Your task to perform on an android device: check the backup settings in the google photos Image 0: 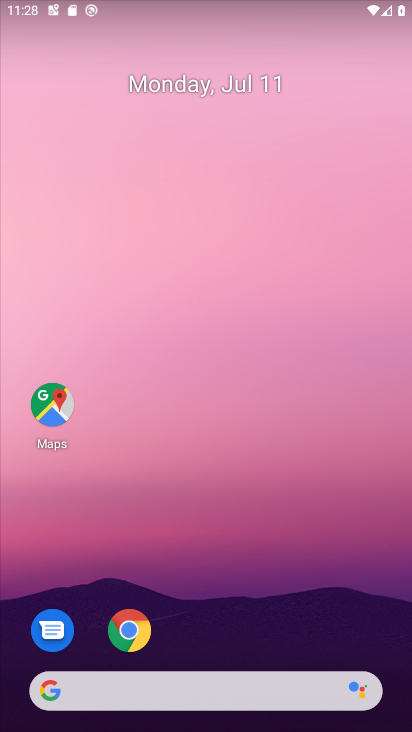
Step 0: drag from (218, 646) to (279, 0)
Your task to perform on an android device: check the backup settings in the google photos Image 1: 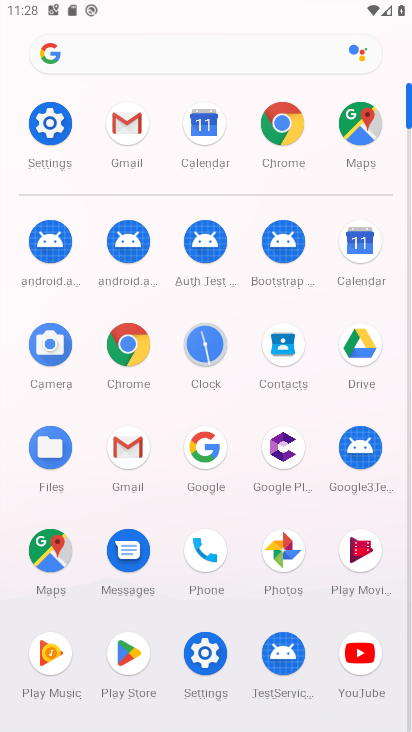
Step 1: click (285, 556)
Your task to perform on an android device: check the backup settings in the google photos Image 2: 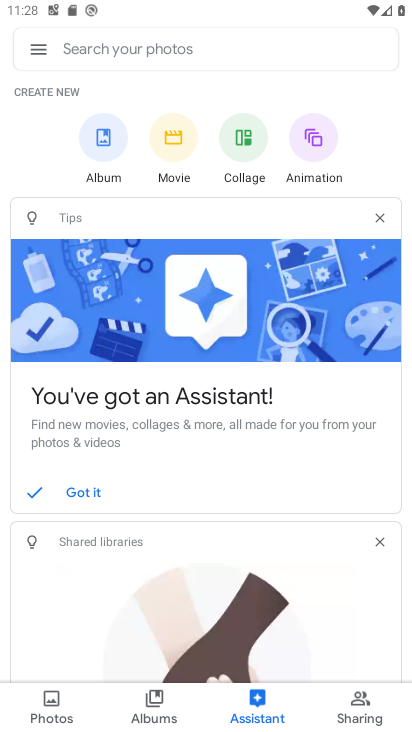
Step 2: click (56, 695)
Your task to perform on an android device: check the backup settings in the google photos Image 3: 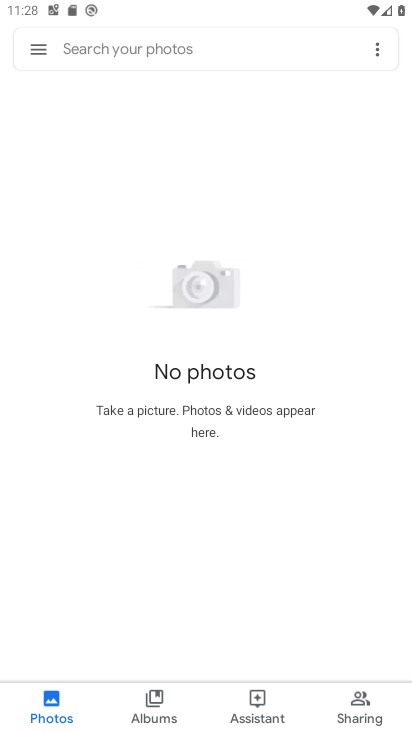
Step 3: click (36, 27)
Your task to perform on an android device: check the backup settings in the google photos Image 4: 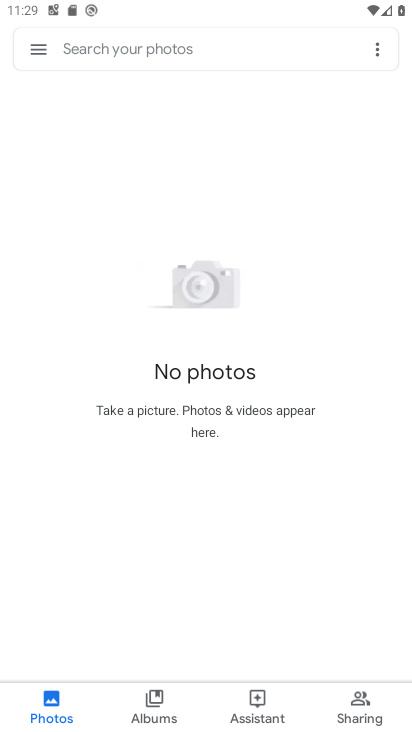
Step 4: click (35, 53)
Your task to perform on an android device: check the backup settings in the google photos Image 5: 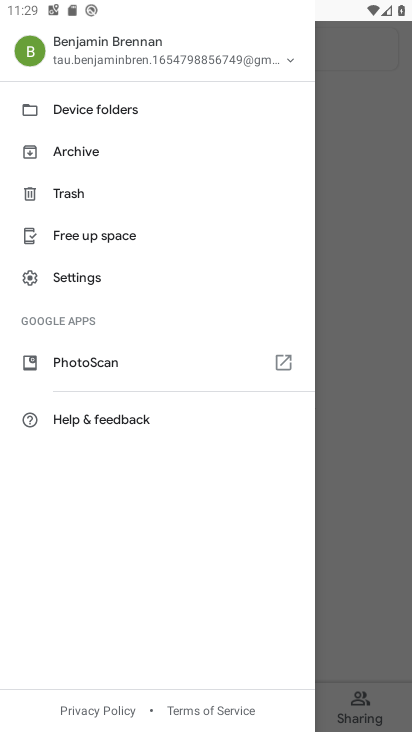
Step 5: click (87, 285)
Your task to perform on an android device: check the backup settings in the google photos Image 6: 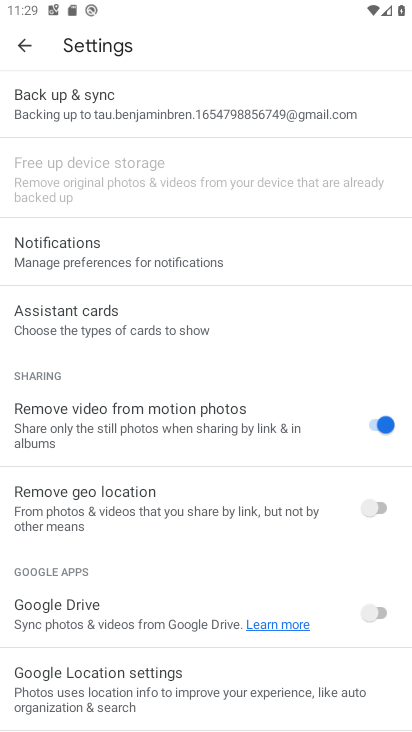
Step 6: click (168, 122)
Your task to perform on an android device: check the backup settings in the google photos Image 7: 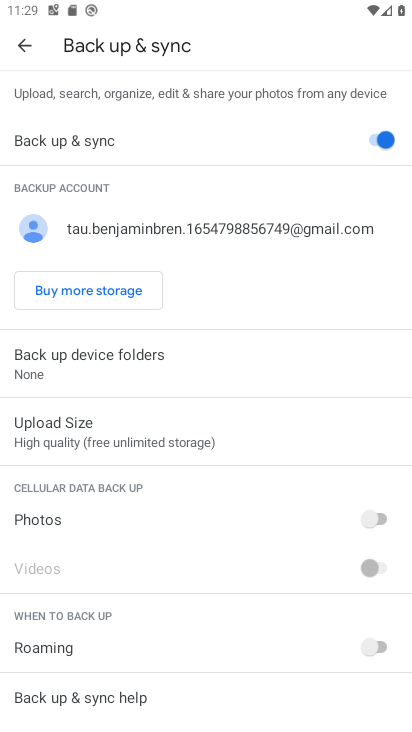
Step 7: task complete